Your task to perform on an android device: toggle airplane mode Image 0: 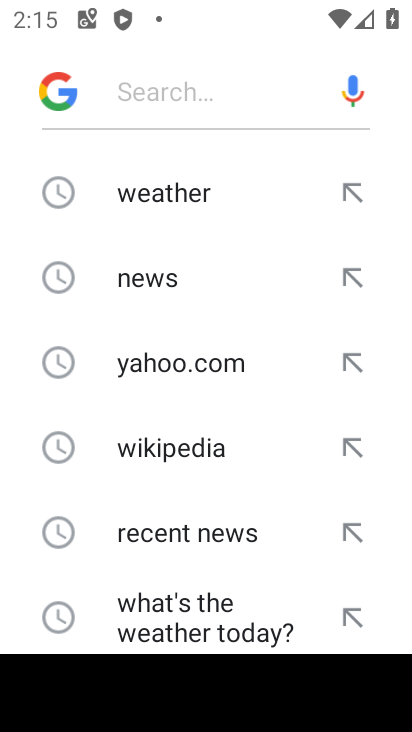
Step 0: press home button
Your task to perform on an android device: toggle airplane mode Image 1: 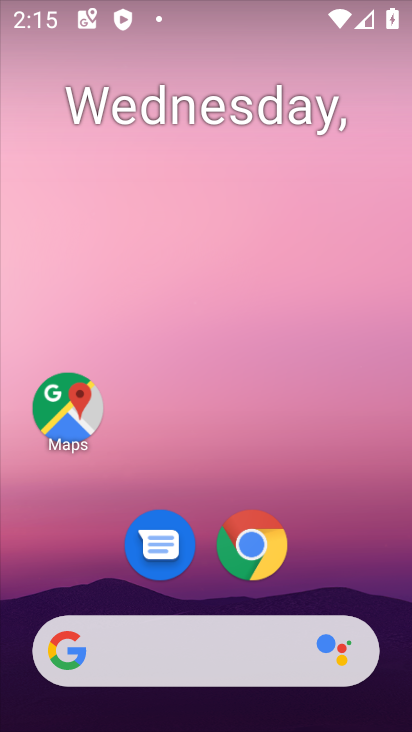
Step 1: drag from (343, 503) to (312, 130)
Your task to perform on an android device: toggle airplane mode Image 2: 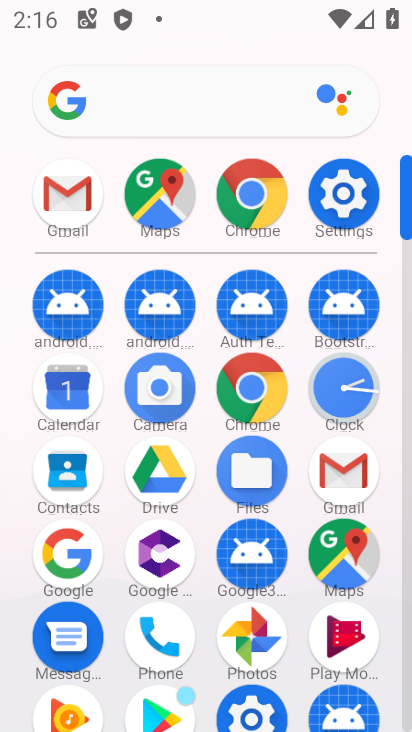
Step 2: click (342, 195)
Your task to perform on an android device: toggle airplane mode Image 3: 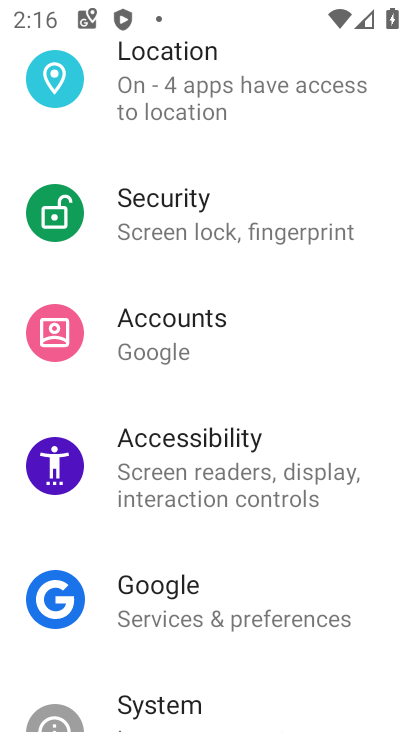
Step 3: drag from (290, 137) to (295, 586)
Your task to perform on an android device: toggle airplane mode Image 4: 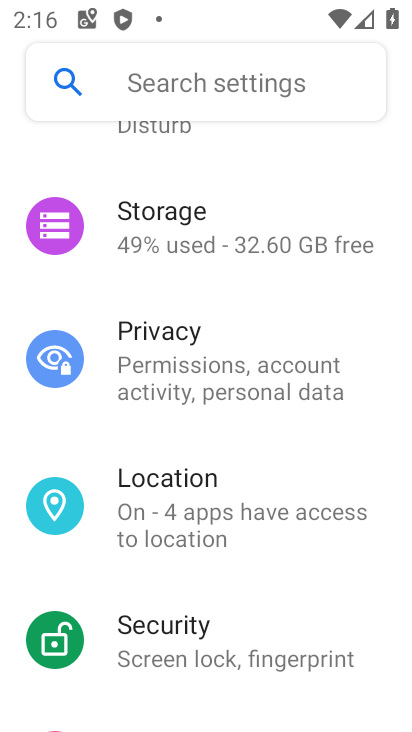
Step 4: drag from (266, 180) to (278, 602)
Your task to perform on an android device: toggle airplane mode Image 5: 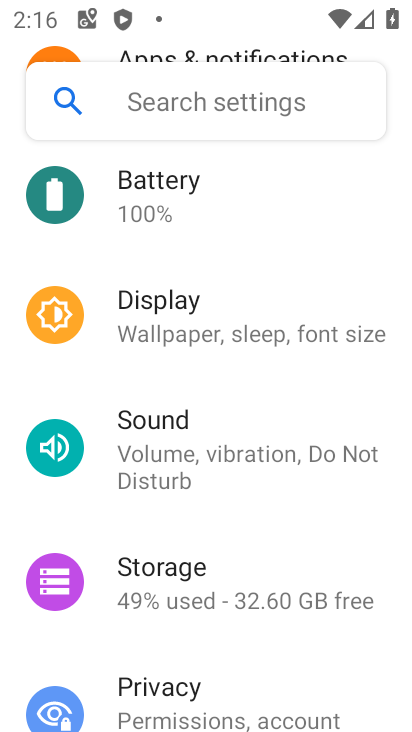
Step 5: drag from (245, 231) to (209, 599)
Your task to perform on an android device: toggle airplane mode Image 6: 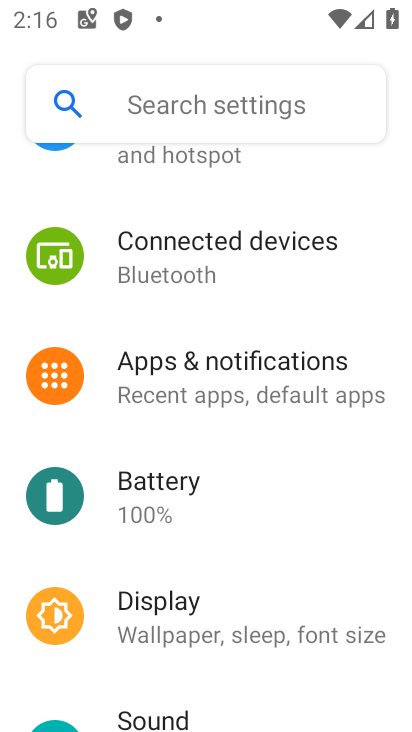
Step 6: drag from (211, 189) to (161, 562)
Your task to perform on an android device: toggle airplane mode Image 7: 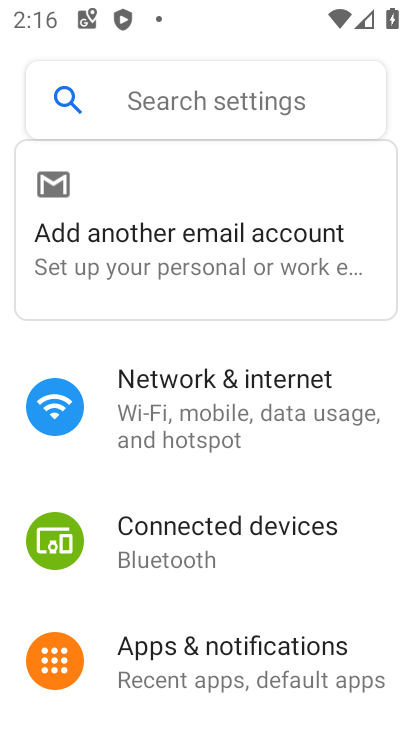
Step 7: click (218, 400)
Your task to perform on an android device: toggle airplane mode Image 8: 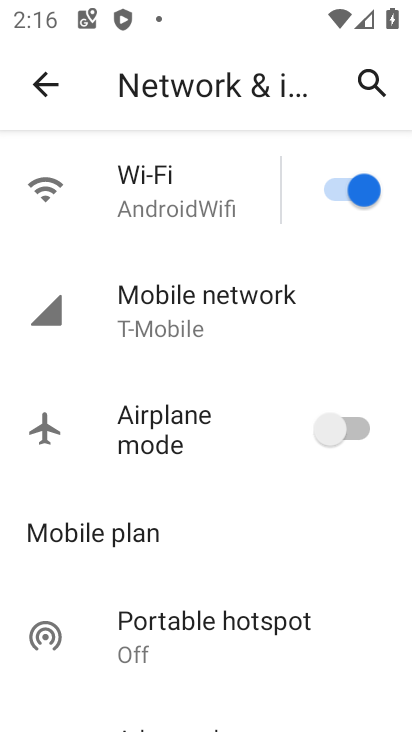
Step 8: click (257, 420)
Your task to perform on an android device: toggle airplane mode Image 9: 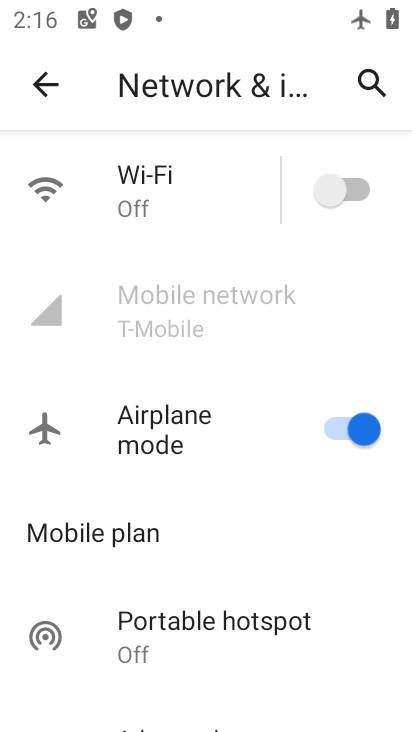
Step 9: task complete